Your task to perform on an android device: Open Chrome and go to settings Image 0: 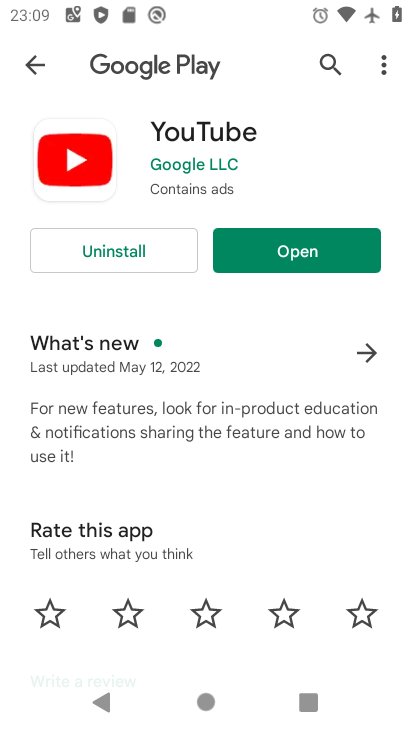
Step 0: press home button
Your task to perform on an android device: Open Chrome and go to settings Image 1: 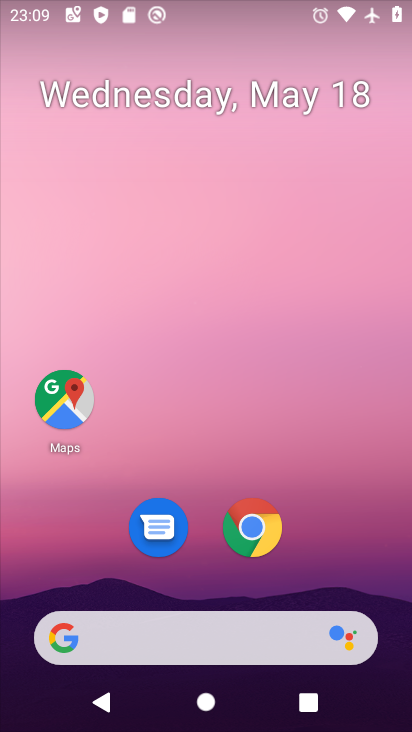
Step 1: click (258, 532)
Your task to perform on an android device: Open Chrome and go to settings Image 2: 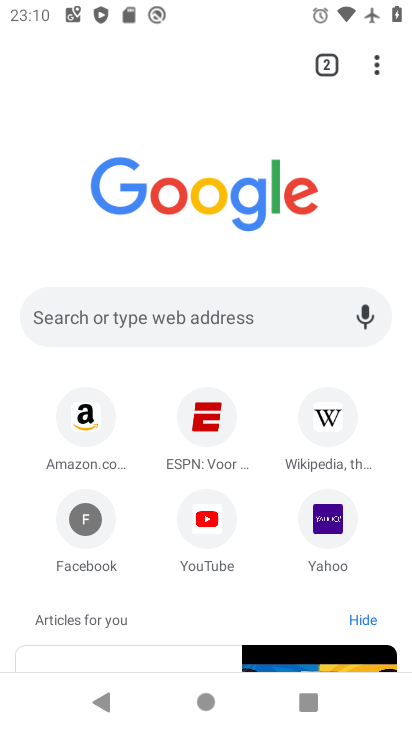
Step 2: click (370, 63)
Your task to perform on an android device: Open Chrome and go to settings Image 3: 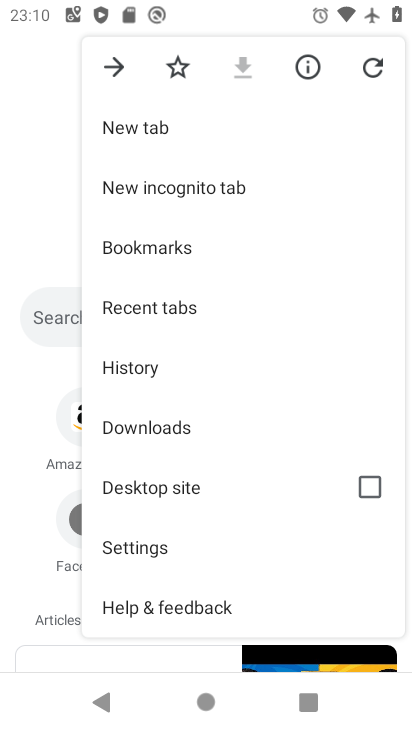
Step 3: click (171, 537)
Your task to perform on an android device: Open Chrome and go to settings Image 4: 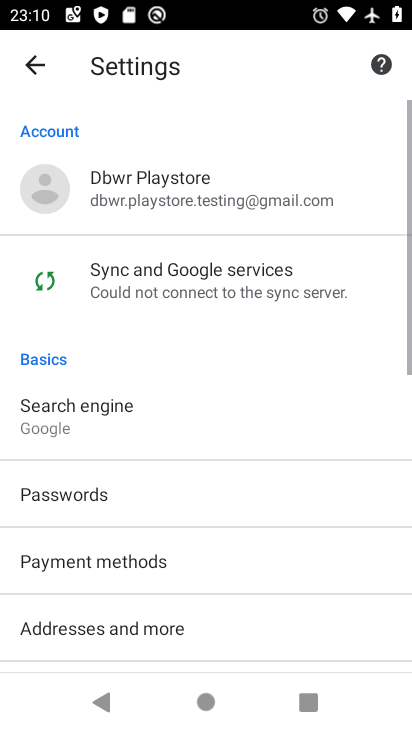
Step 4: task complete